Your task to perform on an android device: open chrome privacy settings Image 0: 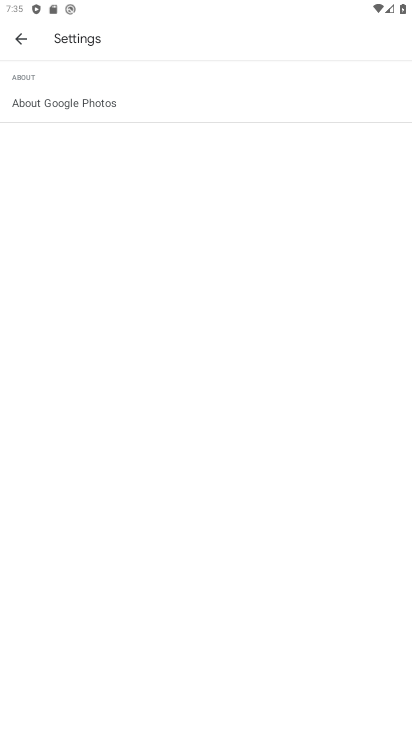
Step 0: press home button
Your task to perform on an android device: open chrome privacy settings Image 1: 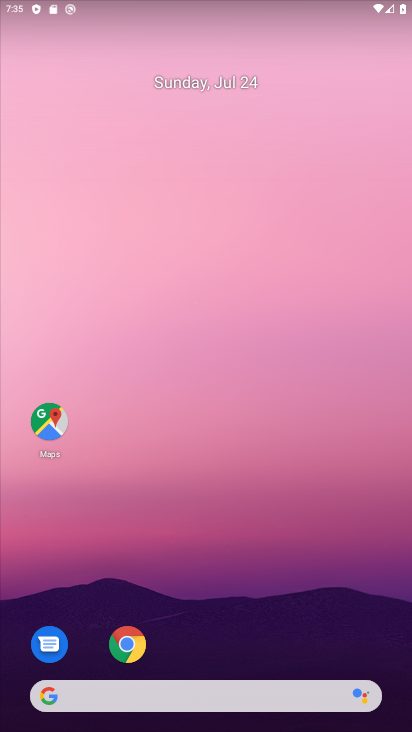
Step 1: click (126, 642)
Your task to perform on an android device: open chrome privacy settings Image 2: 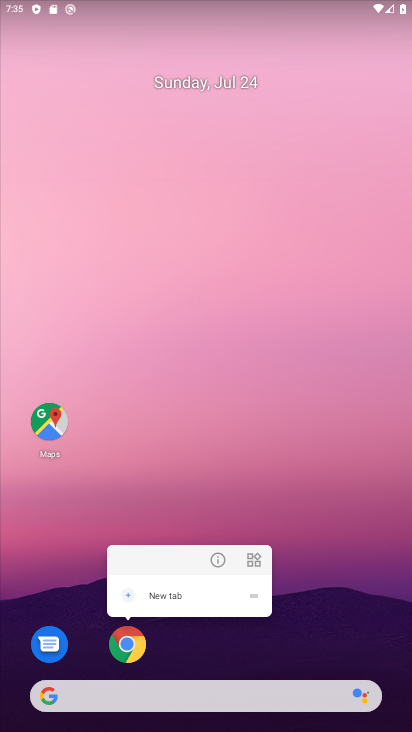
Step 2: click (128, 630)
Your task to perform on an android device: open chrome privacy settings Image 3: 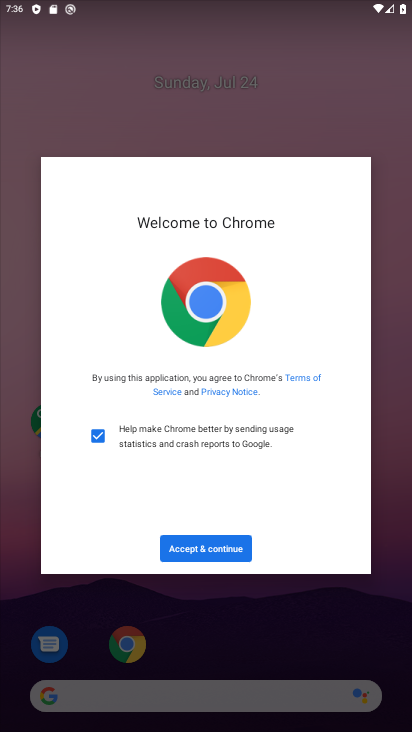
Step 3: click (209, 547)
Your task to perform on an android device: open chrome privacy settings Image 4: 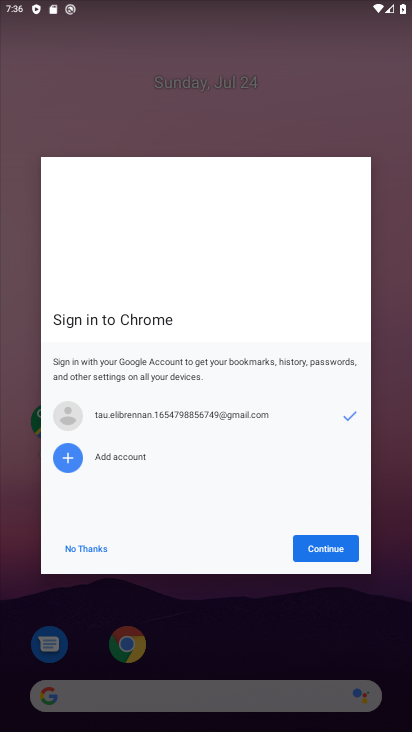
Step 4: click (312, 552)
Your task to perform on an android device: open chrome privacy settings Image 5: 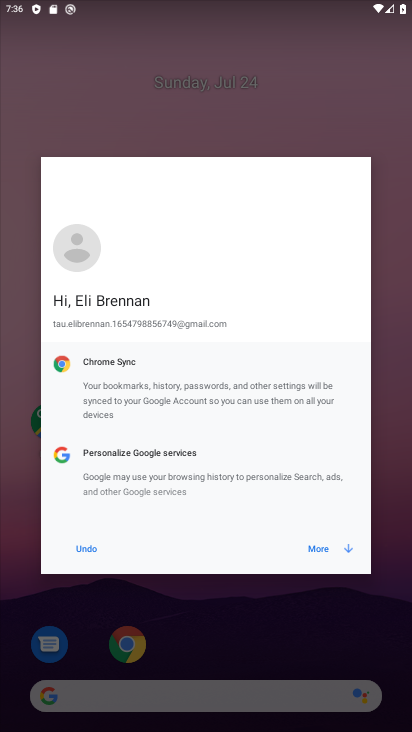
Step 5: click (311, 548)
Your task to perform on an android device: open chrome privacy settings Image 6: 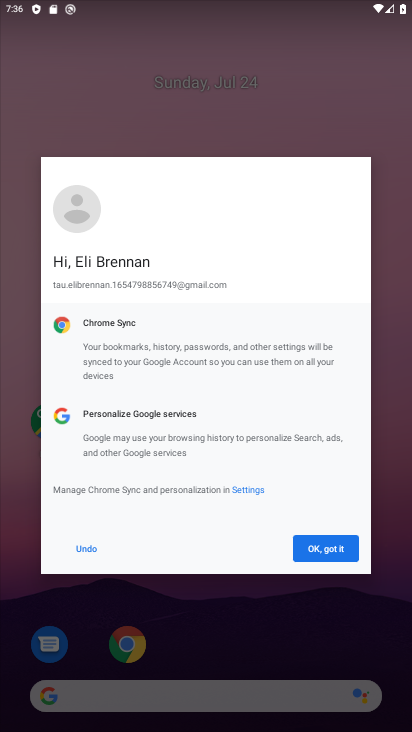
Step 6: click (313, 550)
Your task to perform on an android device: open chrome privacy settings Image 7: 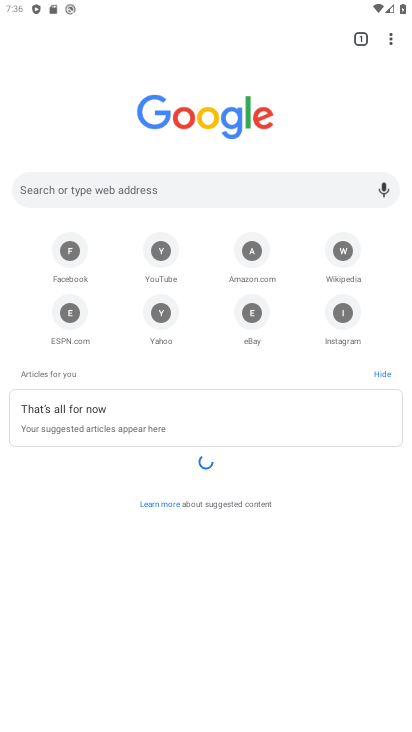
Step 7: click (393, 38)
Your task to perform on an android device: open chrome privacy settings Image 8: 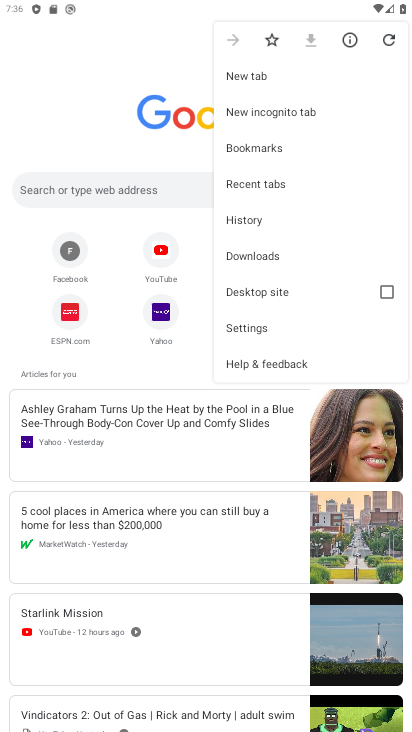
Step 8: click (262, 329)
Your task to perform on an android device: open chrome privacy settings Image 9: 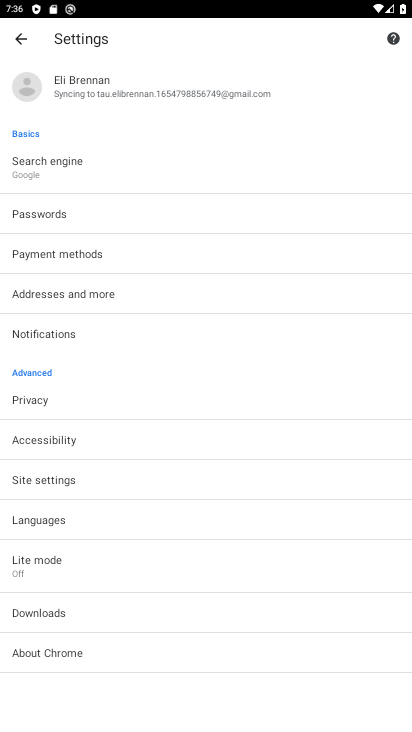
Step 9: click (40, 392)
Your task to perform on an android device: open chrome privacy settings Image 10: 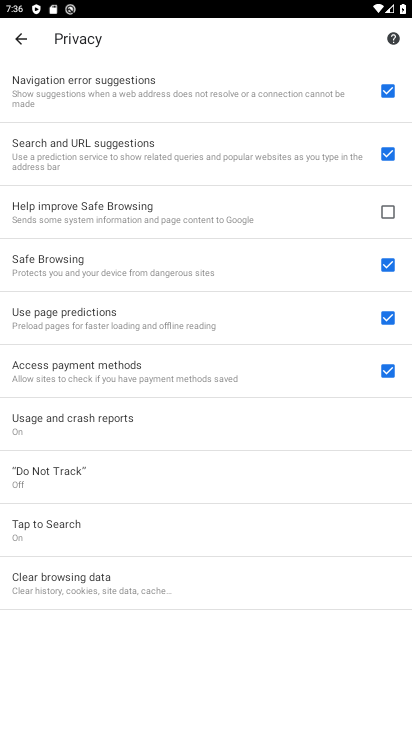
Step 10: task complete